Your task to perform on an android device: turn on the 12-hour format for clock Image 0: 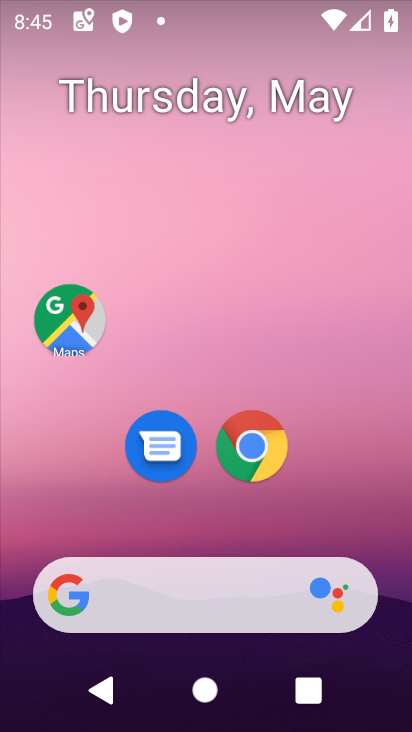
Step 0: drag from (397, 614) to (324, 19)
Your task to perform on an android device: turn on the 12-hour format for clock Image 1: 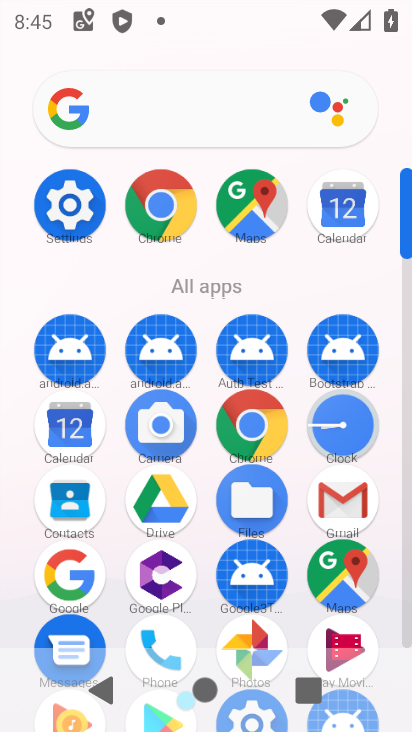
Step 1: click (405, 639)
Your task to perform on an android device: turn on the 12-hour format for clock Image 2: 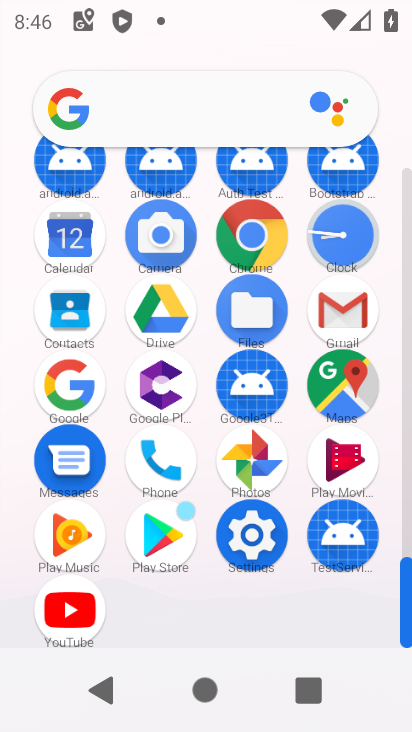
Step 2: click (344, 233)
Your task to perform on an android device: turn on the 12-hour format for clock Image 3: 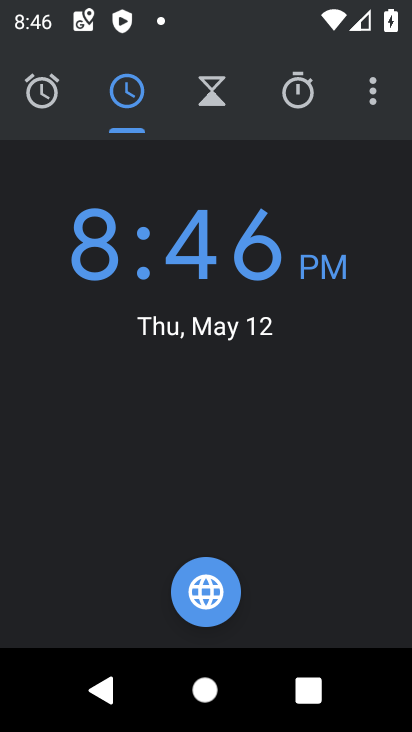
Step 3: click (371, 97)
Your task to perform on an android device: turn on the 12-hour format for clock Image 4: 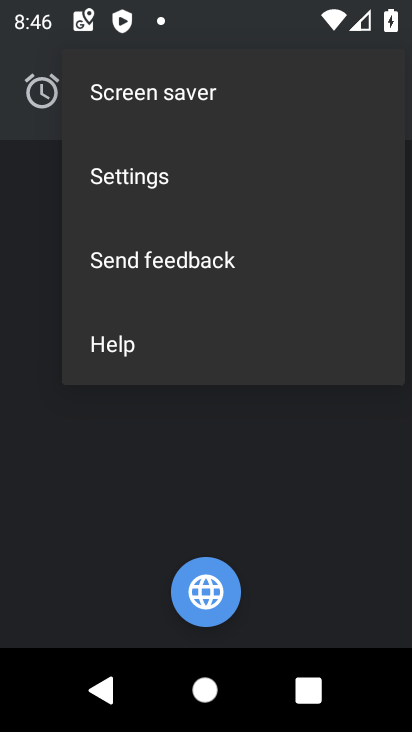
Step 4: click (128, 170)
Your task to perform on an android device: turn on the 12-hour format for clock Image 5: 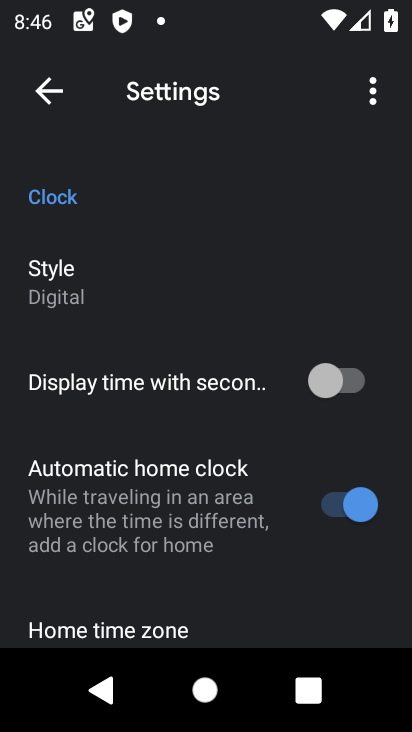
Step 5: drag from (208, 567) to (274, 176)
Your task to perform on an android device: turn on the 12-hour format for clock Image 6: 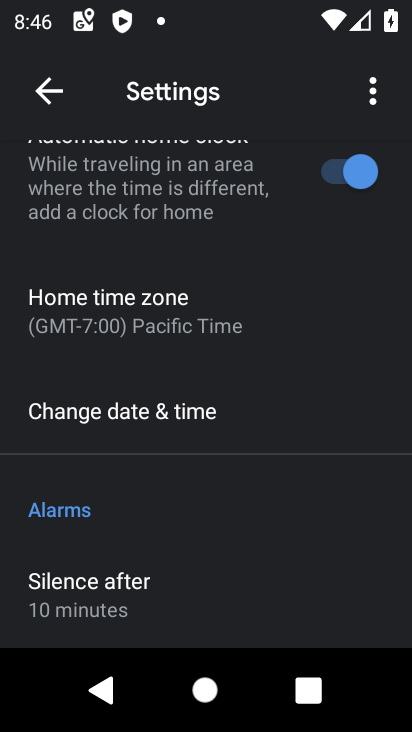
Step 6: click (110, 421)
Your task to perform on an android device: turn on the 12-hour format for clock Image 7: 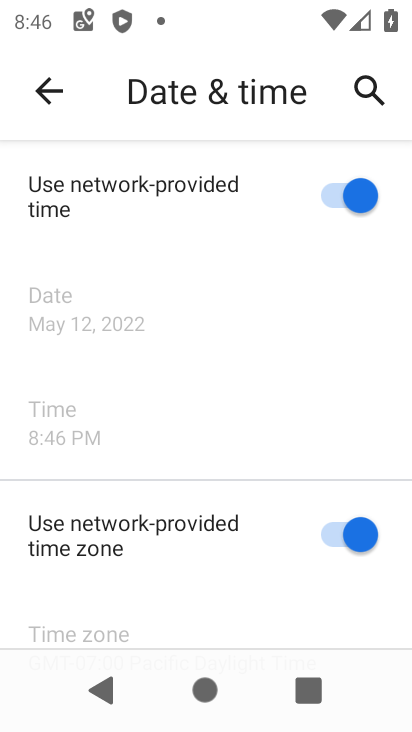
Step 7: task complete